Your task to perform on an android device: delete location history Image 0: 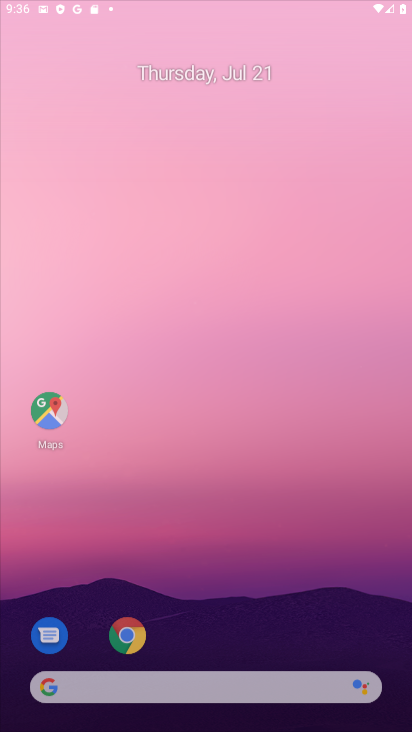
Step 0: press home button
Your task to perform on an android device: delete location history Image 1: 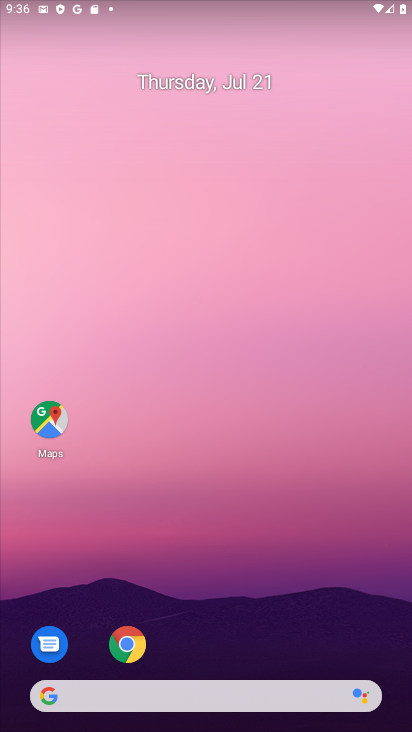
Step 1: drag from (213, 663) to (222, 37)
Your task to perform on an android device: delete location history Image 2: 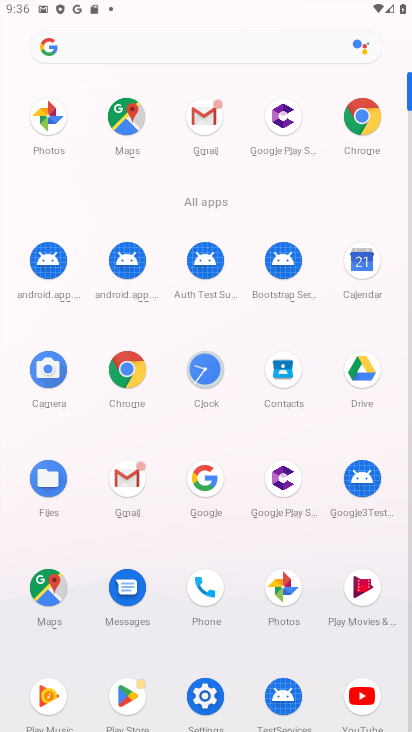
Step 2: click (44, 584)
Your task to perform on an android device: delete location history Image 3: 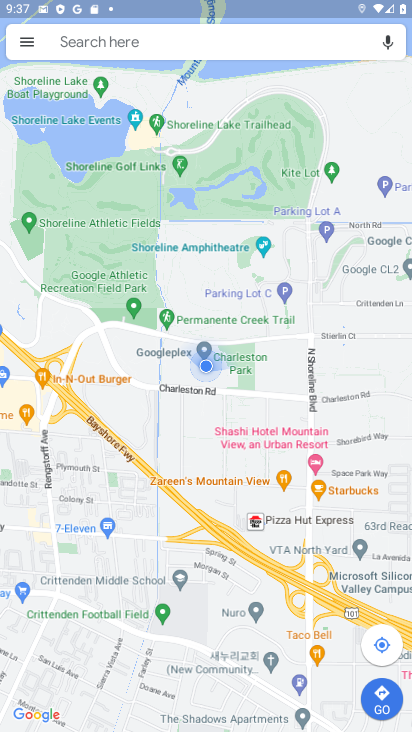
Step 3: click (27, 39)
Your task to perform on an android device: delete location history Image 4: 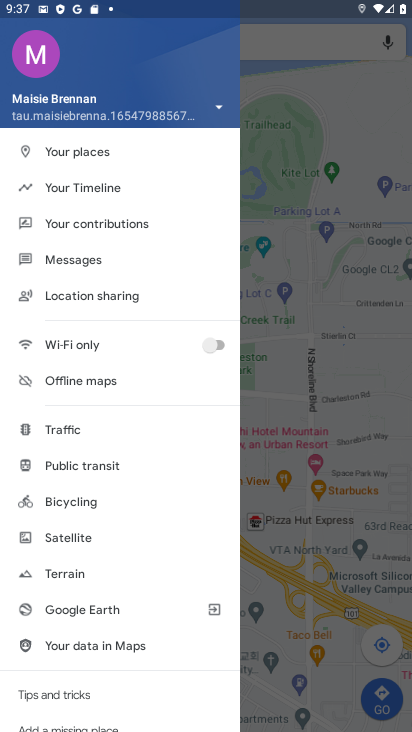
Step 4: click (103, 189)
Your task to perform on an android device: delete location history Image 5: 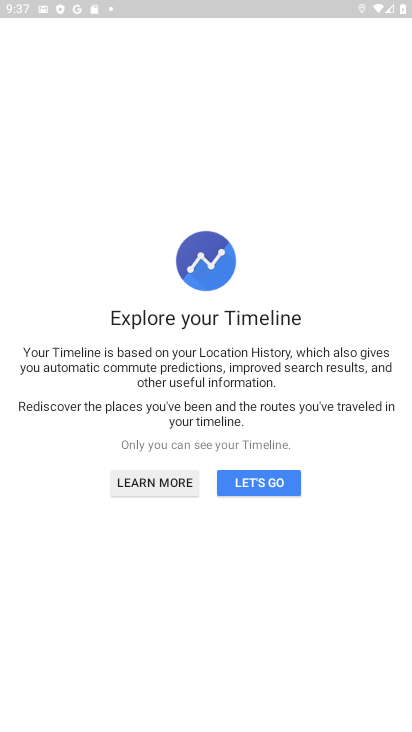
Step 5: click (258, 483)
Your task to perform on an android device: delete location history Image 6: 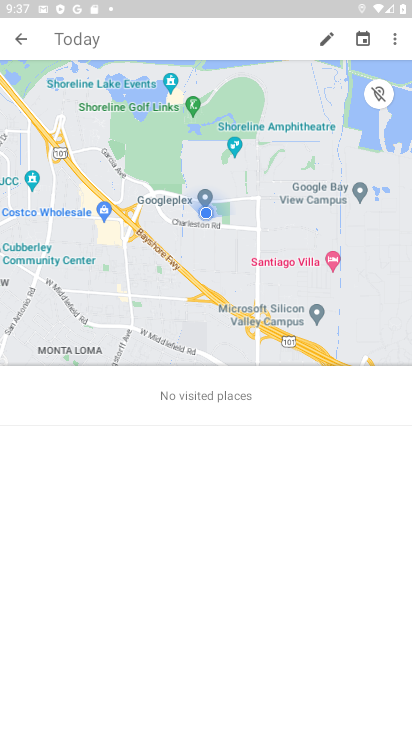
Step 6: click (393, 41)
Your task to perform on an android device: delete location history Image 7: 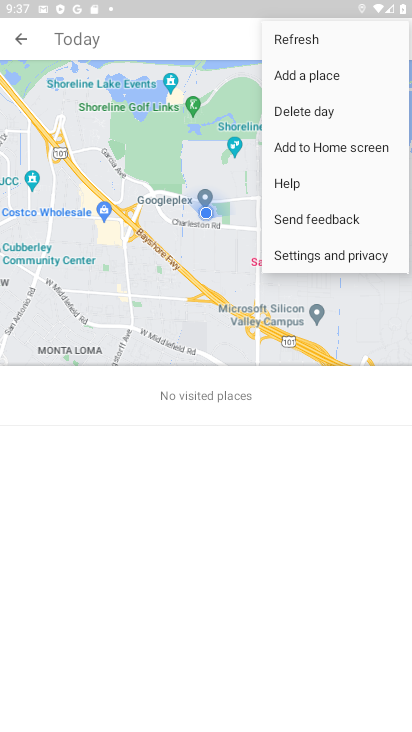
Step 7: click (342, 248)
Your task to perform on an android device: delete location history Image 8: 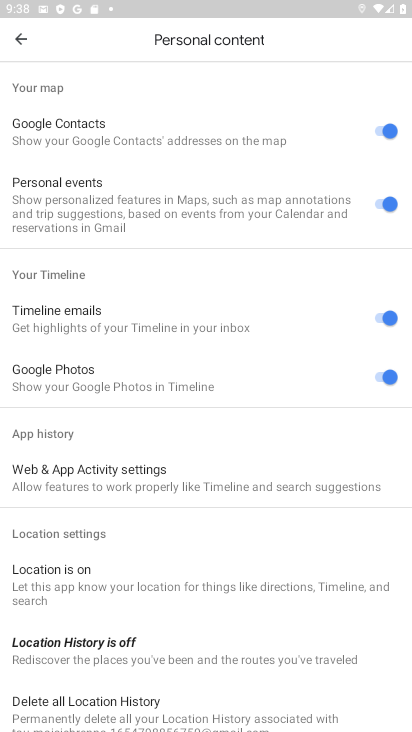
Step 8: drag from (206, 490) to (256, 190)
Your task to perform on an android device: delete location history Image 9: 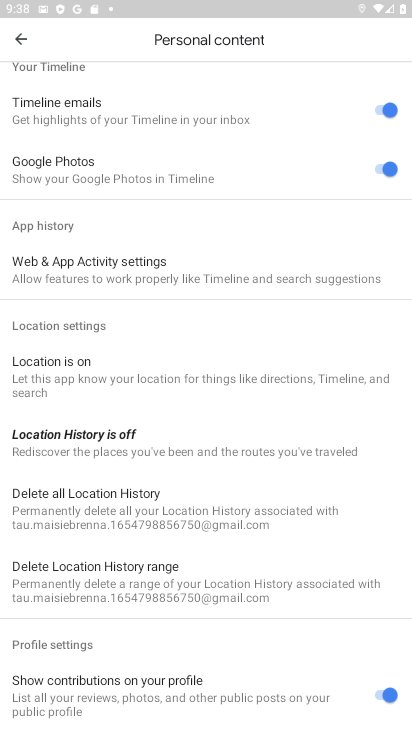
Step 9: click (147, 501)
Your task to perform on an android device: delete location history Image 10: 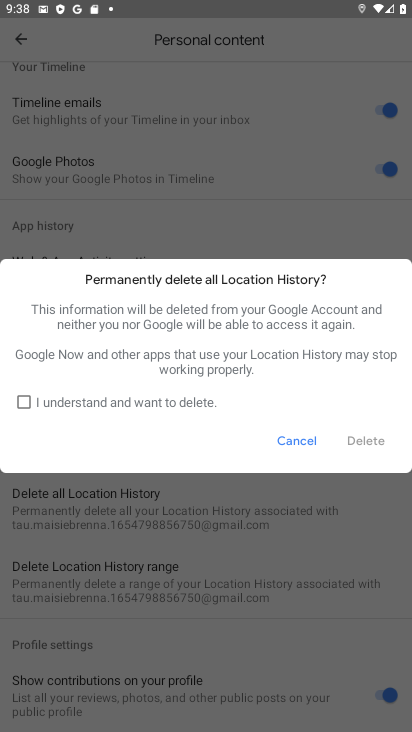
Step 10: click (31, 399)
Your task to perform on an android device: delete location history Image 11: 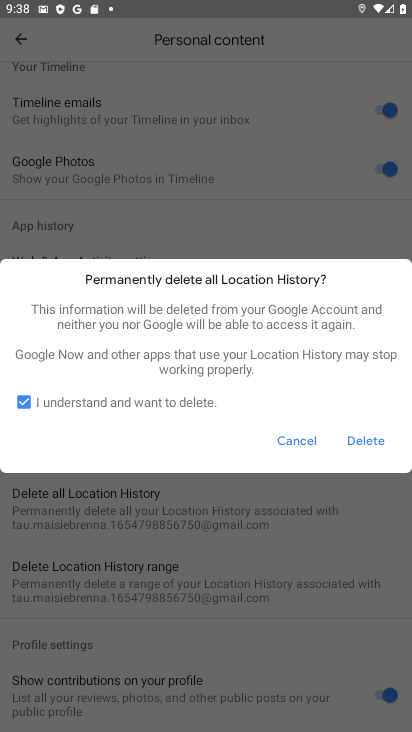
Step 11: click (364, 439)
Your task to perform on an android device: delete location history Image 12: 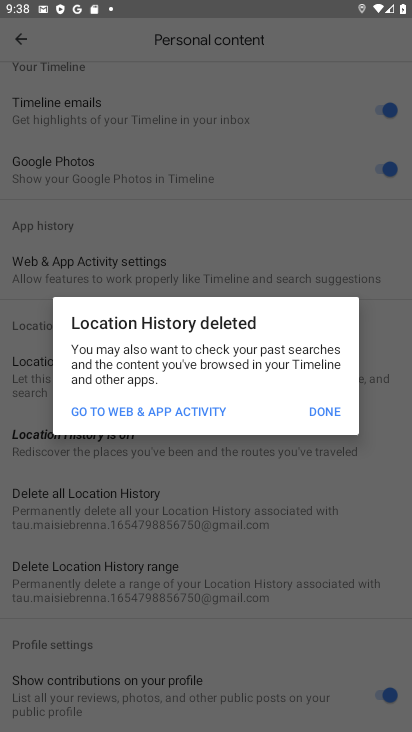
Step 12: click (321, 407)
Your task to perform on an android device: delete location history Image 13: 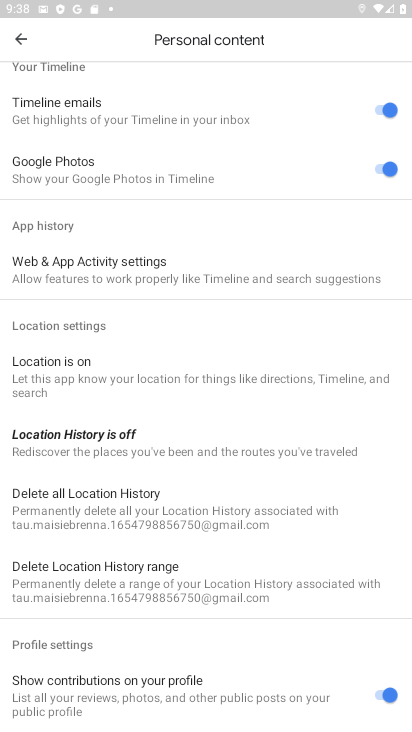
Step 13: task complete